Your task to perform on an android device: change text size in settings app Image 0: 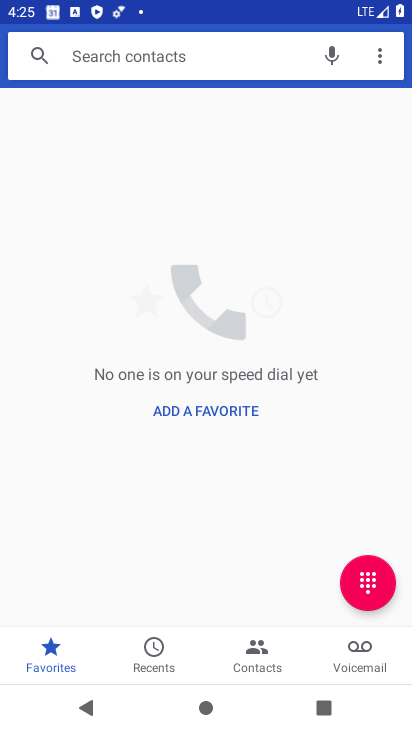
Step 0: press home button
Your task to perform on an android device: change text size in settings app Image 1: 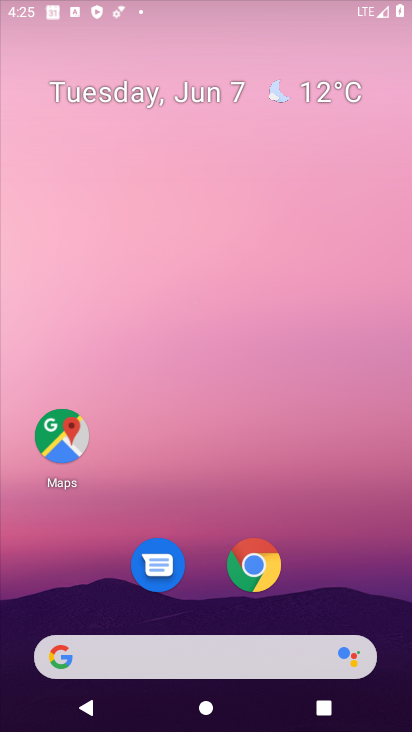
Step 1: drag from (256, 552) to (257, 49)
Your task to perform on an android device: change text size in settings app Image 2: 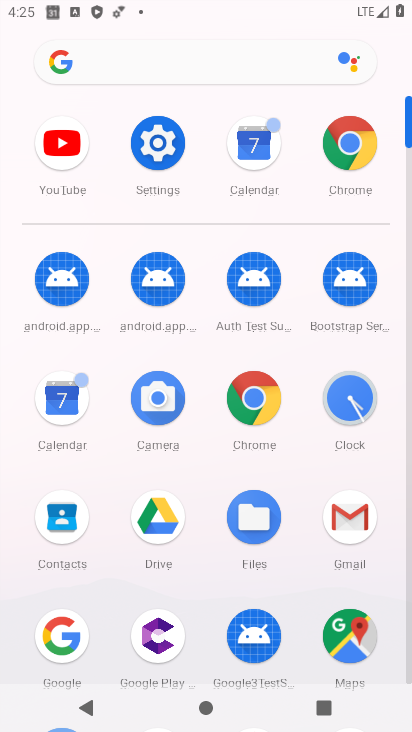
Step 2: click (161, 125)
Your task to perform on an android device: change text size in settings app Image 3: 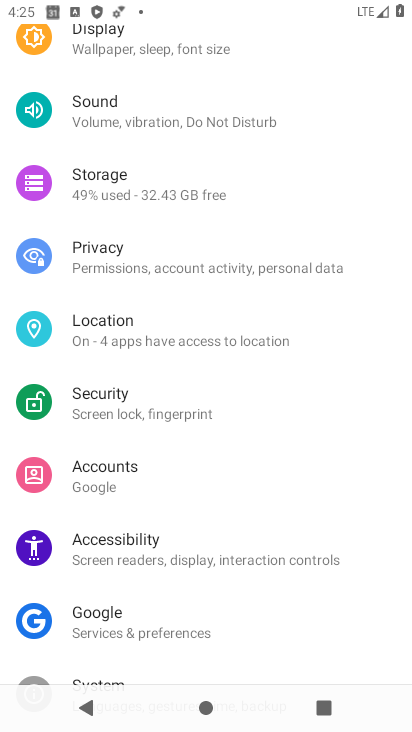
Step 3: drag from (156, 655) to (167, 266)
Your task to perform on an android device: change text size in settings app Image 4: 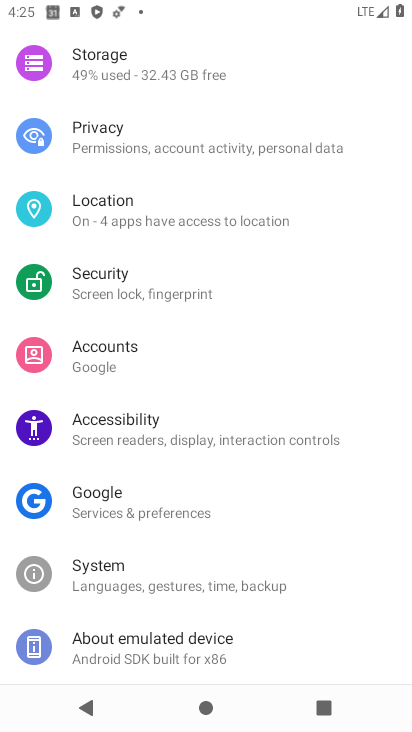
Step 4: click (173, 425)
Your task to perform on an android device: change text size in settings app Image 5: 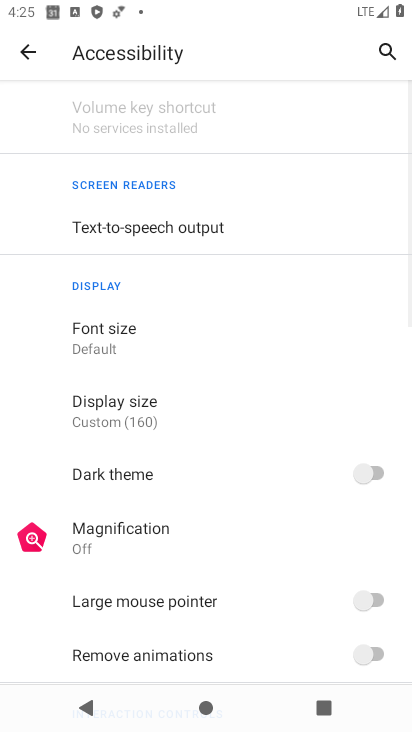
Step 5: click (152, 345)
Your task to perform on an android device: change text size in settings app Image 6: 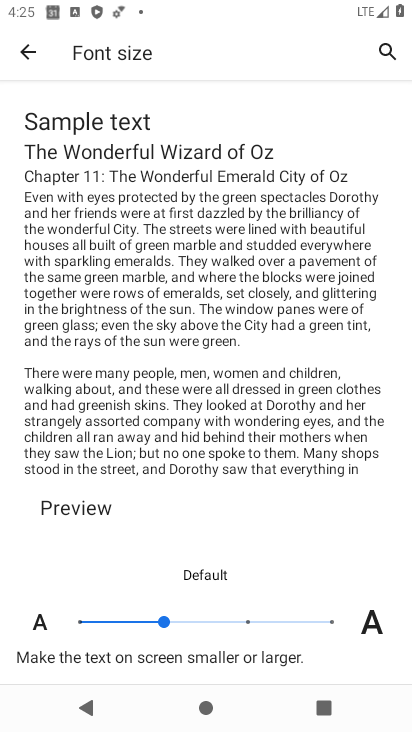
Step 6: click (209, 620)
Your task to perform on an android device: change text size in settings app Image 7: 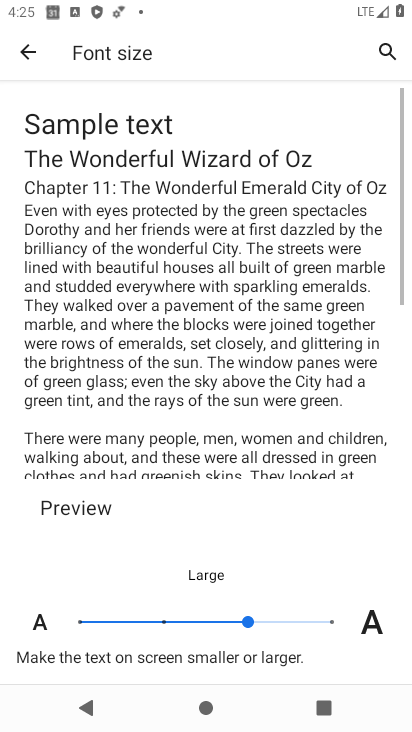
Step 7: task complete